Your task to perform on an android device: Open internet settings Image 0: 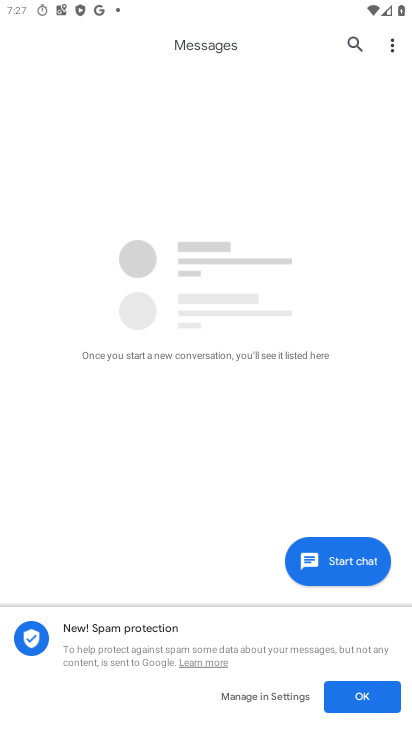
Step 0: press home button
Your task to perform on an android device: Open internet settings Image 1: 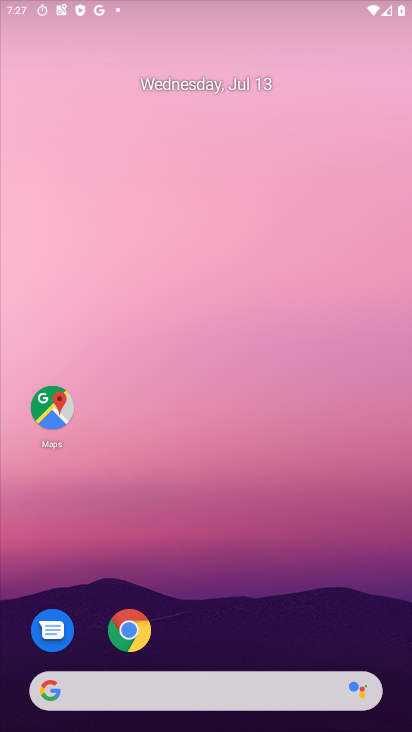
Step 1: drag from (251, 607) to (122, 0)
Your task to perform on an android device: Open internet settings Image 2: 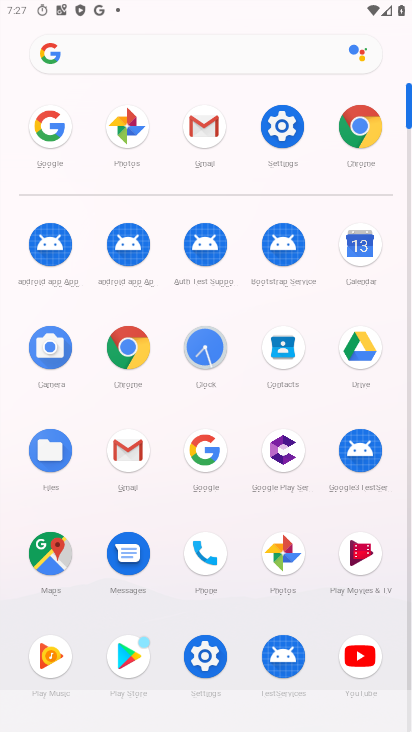
Step 2: click (278, 129)
Your task to perform on an android device: Open internet settings Image 3: 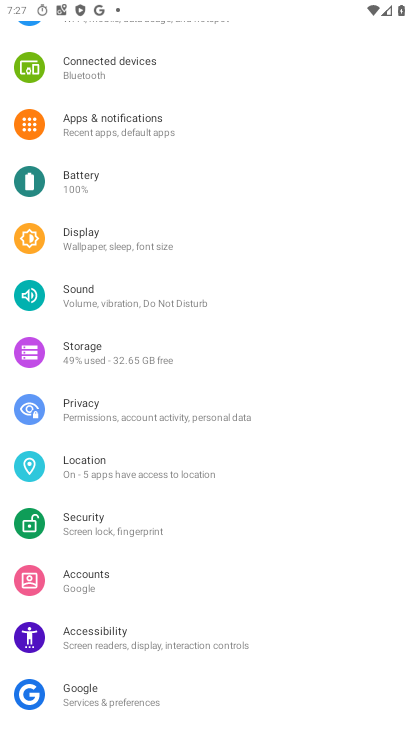
Step 3: drag from (142, 115) to (193, 528)
Your task to perform on an android device: Open internet settings Image 4: 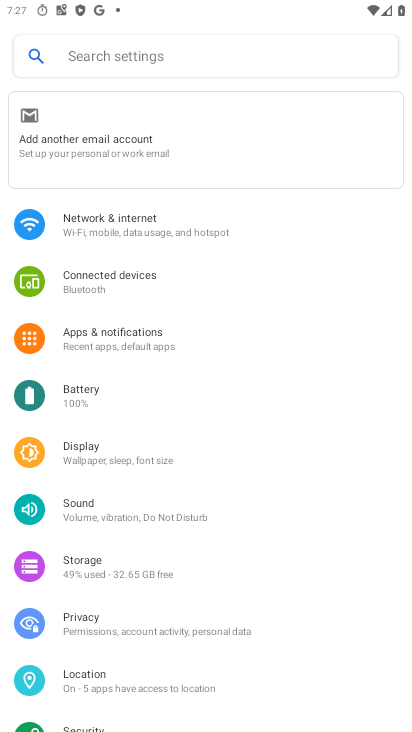
Step 4: click (68, 236)
Your task to perform on an android device: Open internet settings Image 5: 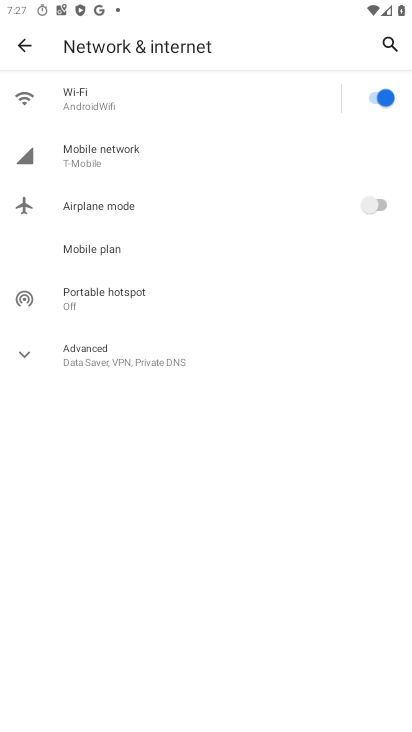
Step 5: task complete